Your task to perform on an android device: turn on javascript in the chrome app Image 0: 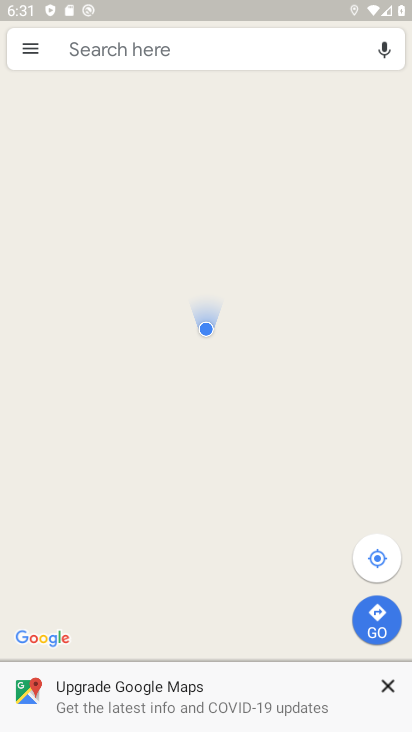
Step 0: press home button
Your task to perform on an android device: turn on javascript in the chrome app Image 1: 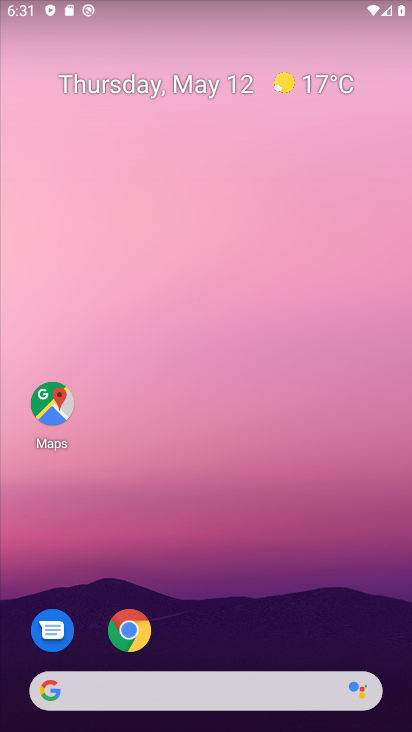
Step 1: drag from (368, 634) to (319, 62)
Your task to perform on an android device: turn on javascript in the chrome app Image 2: 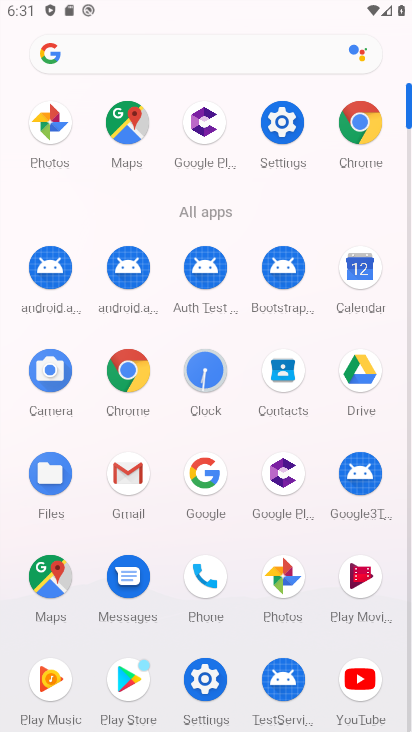
Step 2: click (124, 385)
Your task to perform on an android device: turn on javascript in the chrome app Image 3: 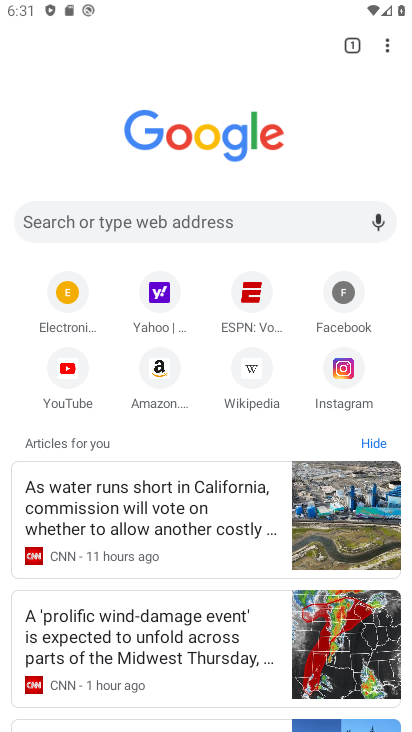
Step 3: click (389, 40)
Your task to perform on an android device: turn on javascript in the chrome app Image 4: 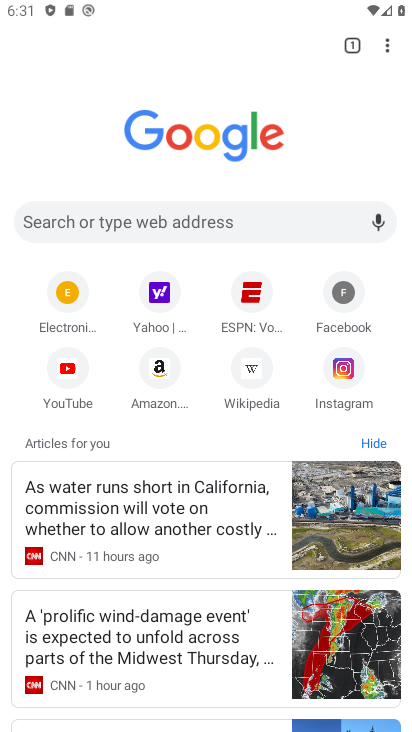
Step 4: click (388, 43)
Your task to perform on an android device: turn on javascript in the chrome app Image 5: 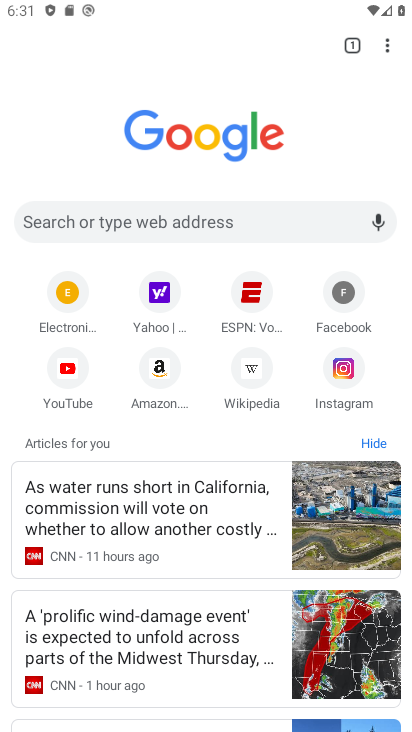
Step 5: click (239, 324)
Your task to perform on an android device: turn on javascript in the chrome app Image 6: 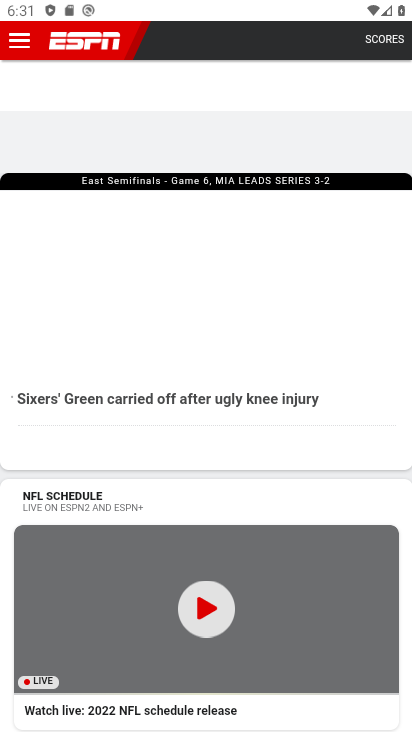
Step 6: press back button
Your task to perform on an android device: turn on javascript in the chrome app Image 7: 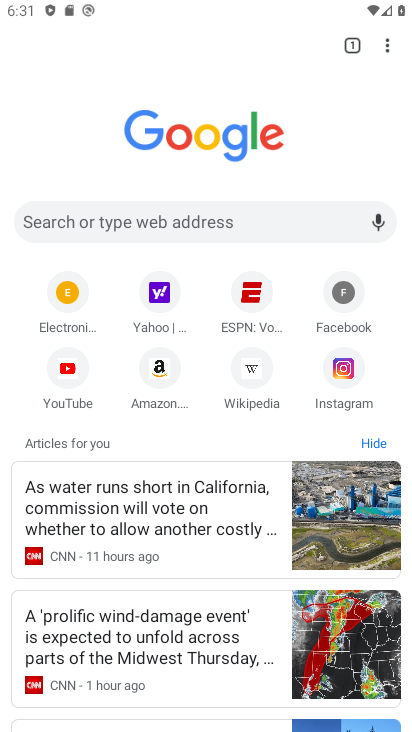
Step 7: click (386, 44)
Your task to perform on an android device: turn on javascript in the chrome app Image 8: 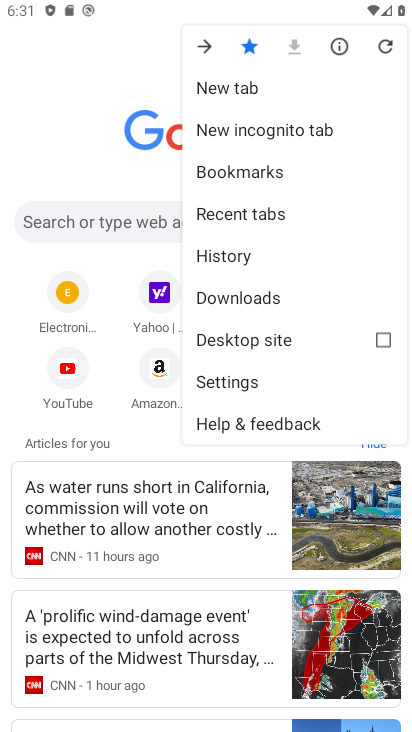
Step 8: click (235, 358)
Your task to perform on an android device: turn on javascript in the chrome app Image 9: 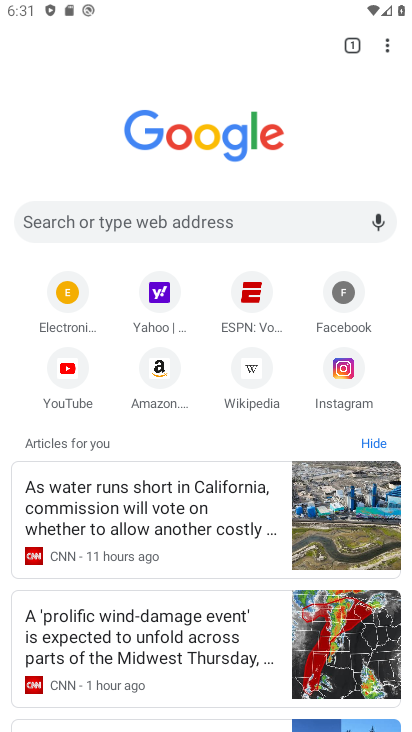
Step 9: click (380, 42)
Your task to perform on an android device: turn on javascript in the chrome app Image 10: 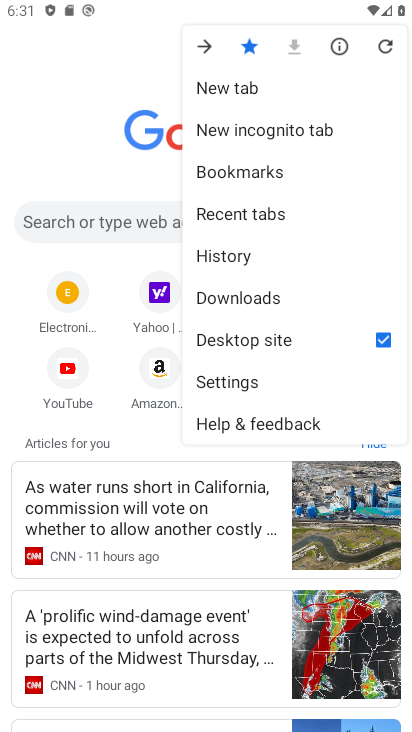
Step 10: click (278, 385)
Your task to perform on an android device: turn on javascript in the chrome app Image 11: 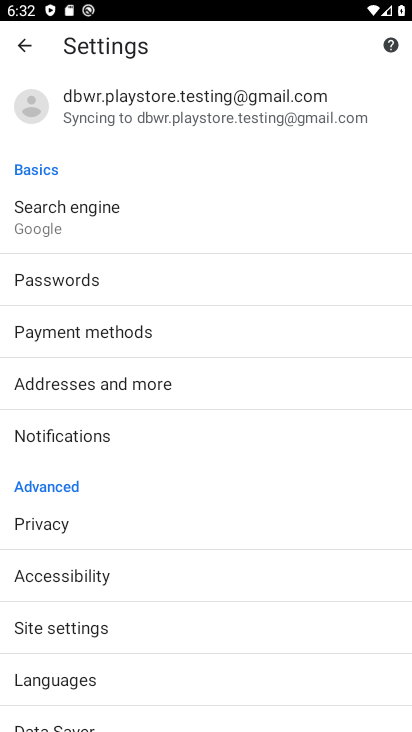
Step 11: click (108, 626)
Your task to perform on an android device: turn on javascript in the chrome app Image 12: 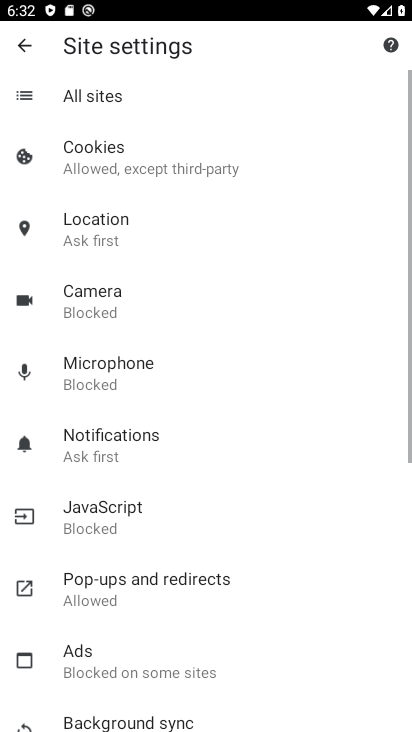
Step 12: click (97, 494)
Your task to perform on an android device: turn on javascript in the chrome app Image 13: 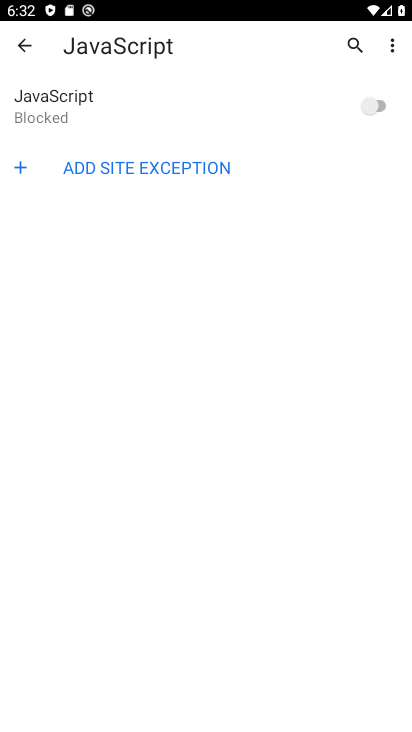
Step 13: click (311, 77)
Your task to perform on an android device: turn on javascript in the chrome app Image 14: 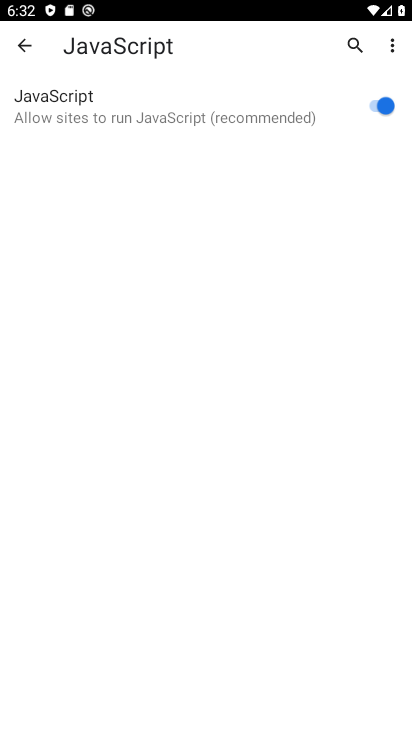
Step 14: task complete